Your task to perform on an android device: turn off translation in the chrome app Image 0: 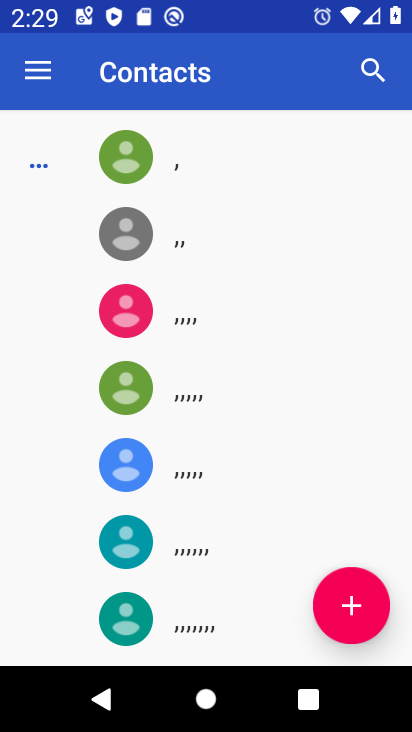
Step 0: press home button
Your task to perform on an android device: turn off translation in the chrome app Image 1: 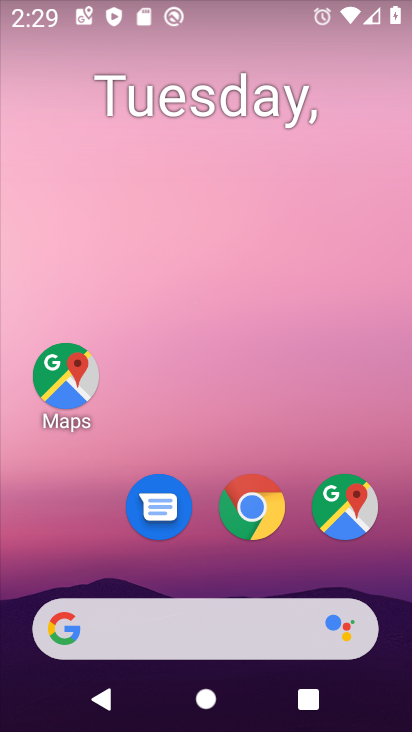
Step 1: drag from (262, 561) to (296, 176)
Your task to perform on an android device: turn off translation in the chrome app Image 2: 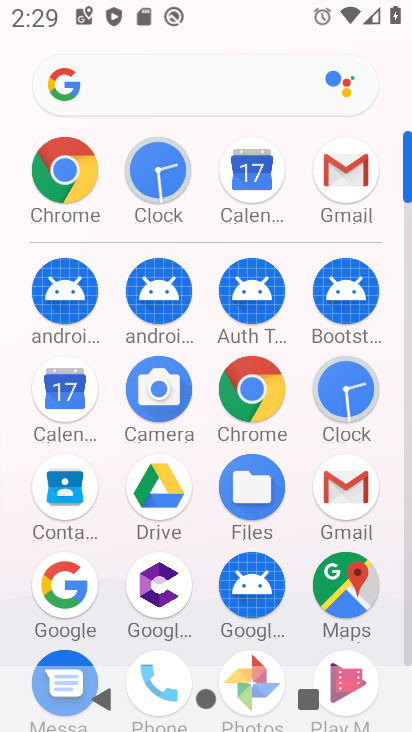
Step 2: click (252, 385)
Your task to perform on an android device: turn off translation in the chrome app Image 3: 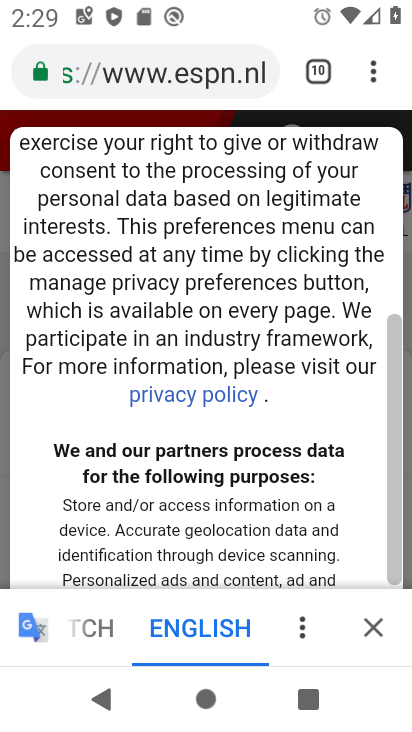
Step 3: click (362, 76)
Your task to perform on an android device: turn off translation in the chrome app Image 4: 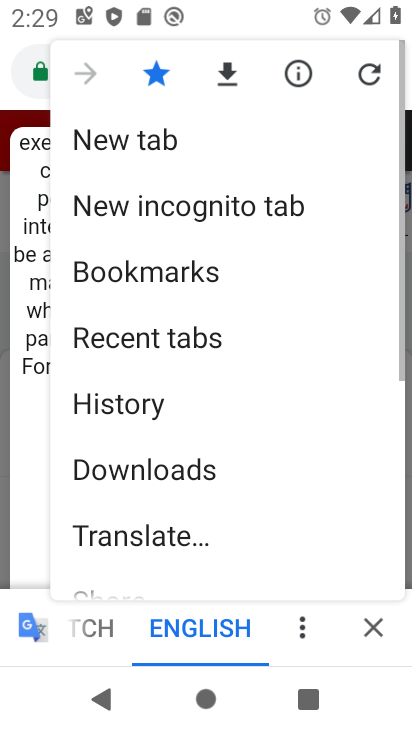
Step 4: drag from (232, 538) to (289, 201)
Your task to perform on an android device: turn off translation in the chrome app Image 5: 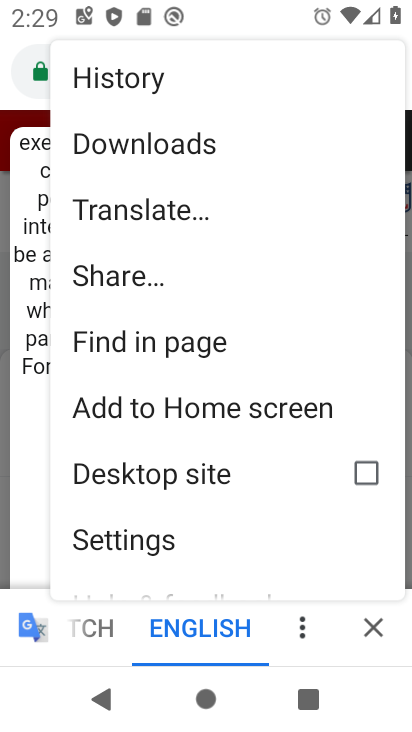
Step 5: drag from (194, 519) to (224, 324)
Your task to perform on an android device: turn off translation in the chrome app Image 6: 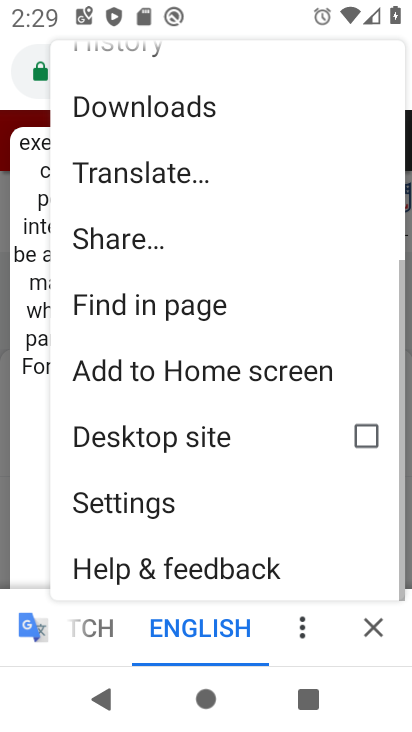
Step 6: click (147, 495)
Your task to perform on an android device: turn off translation in the chrome app Image 7: 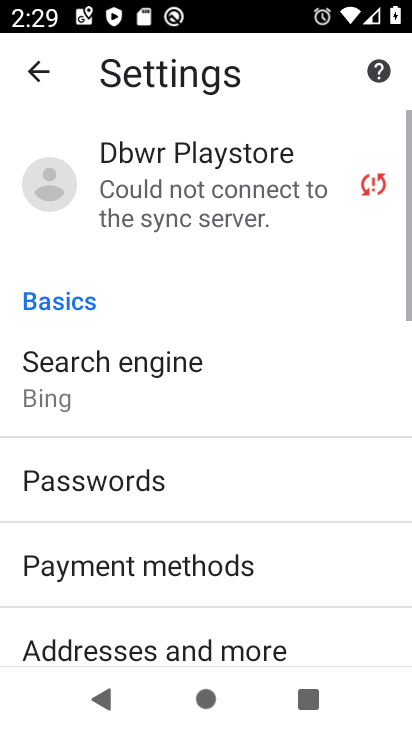
Step 7: drag from (208, 581) to (253, 273)
Your task to perform on an android device: turn off translation in the chrome app Image 8: 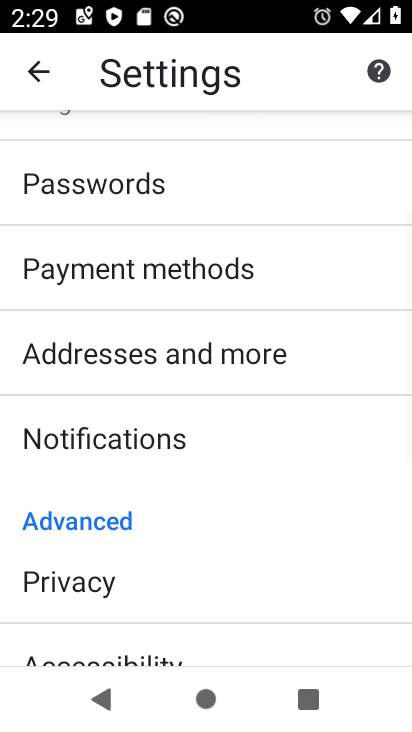
Step 8: drag from (176, 573) to (270, 238)
Your task to perform on an android device: turn off translation in the chrome app Image 9: 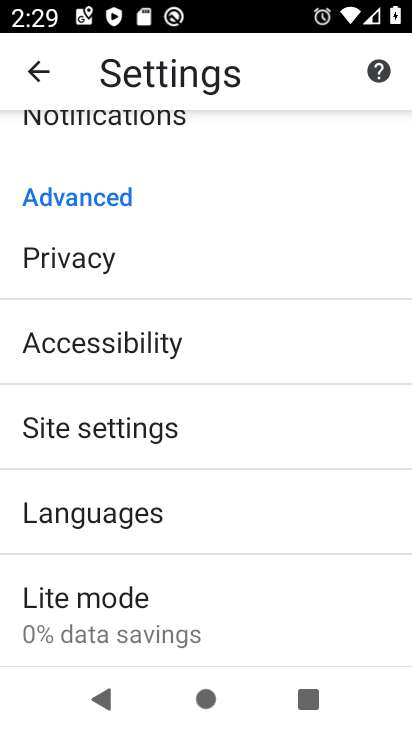
Step 9: click (137, 515)
Your task to perform on an android device: turn off translation in the chrome app Image 10: 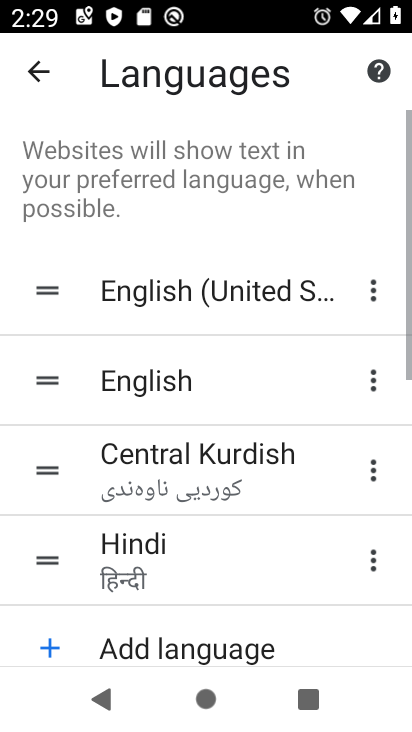
Step 10: drag from (288, 598) to (389, 212)
Your task to perform on an android device: turn off translation in the chrome app Image 11: 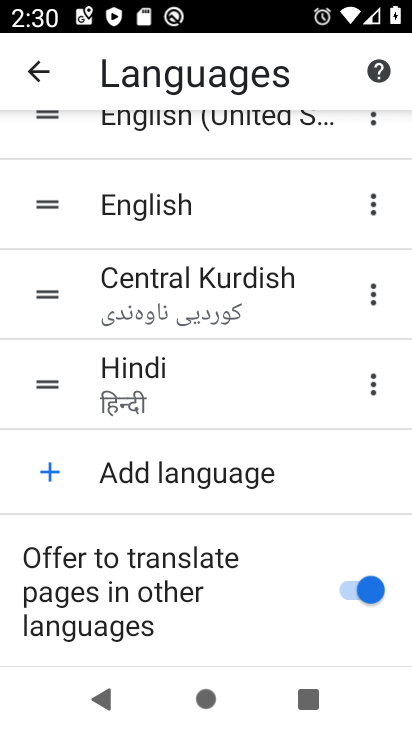
Step 11: click (348, 580)
Your task to perform on an android device: turn off translation in the chrome app Image 12: 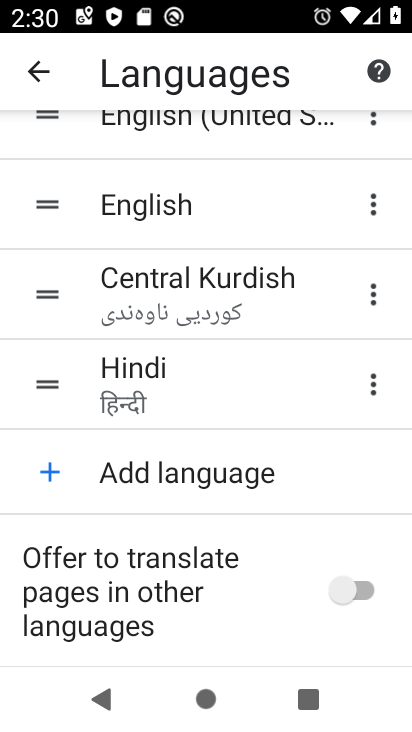
Step 12: task complete